Your task to perform on an android device: turn on the 12-hour format for clock Image 0: 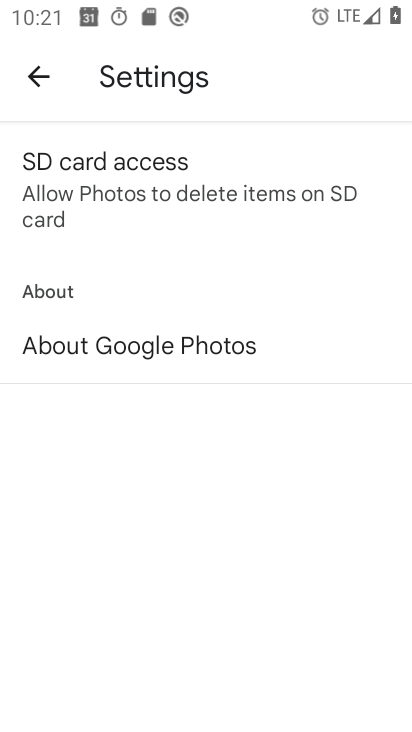
Step 0: press home button
Your task to perform on an android device: turn on the 12-hour format for clock Image 1: 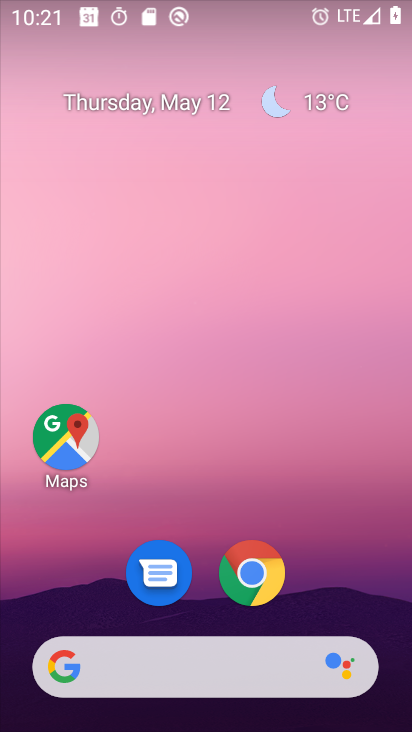
Step 1: drag from (387, 650) to (369, 185)
Your task to perform on an android device: turn on the 12-hour format for clock Image 2: 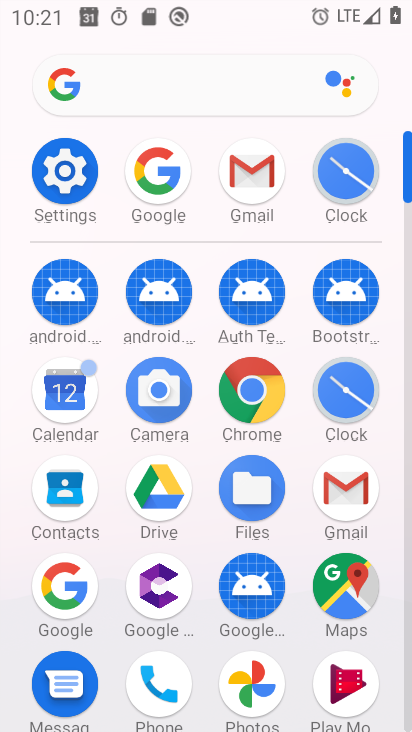
Step 2: click (331, 397)
Your task to perform on an android device: turn on the 12-hour format for clock Image 3: 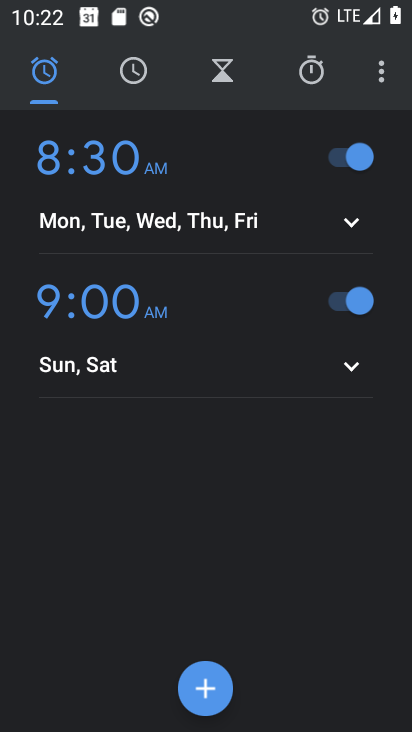
Step 3: click (129, 75)
Your task to perform on an android device: turn on the 12-hour format for clock Image 4: 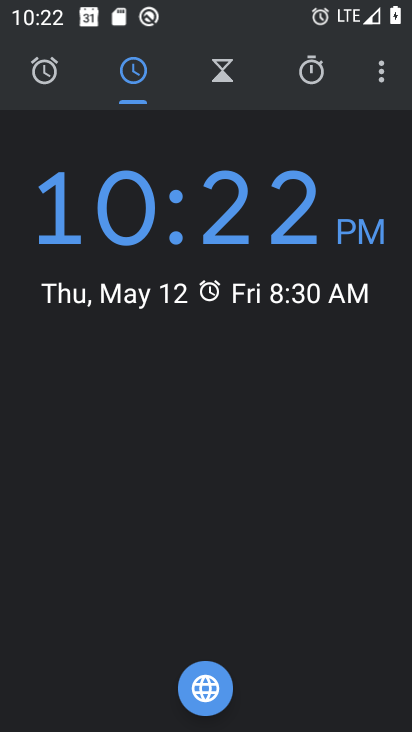
Step 4: click (380, 77)
Your task to perform on an android device: turn on the 12-hour format for clock Image 5: 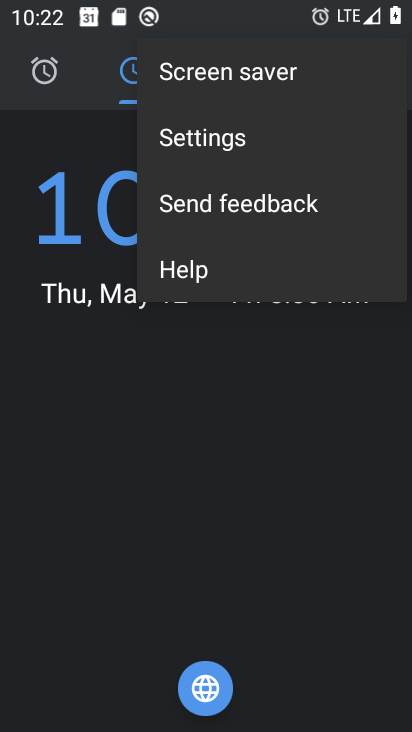
Step 5: click (203, 133)
Your task to perform on an android device: turn on the 12-hour format for clock Image 6: 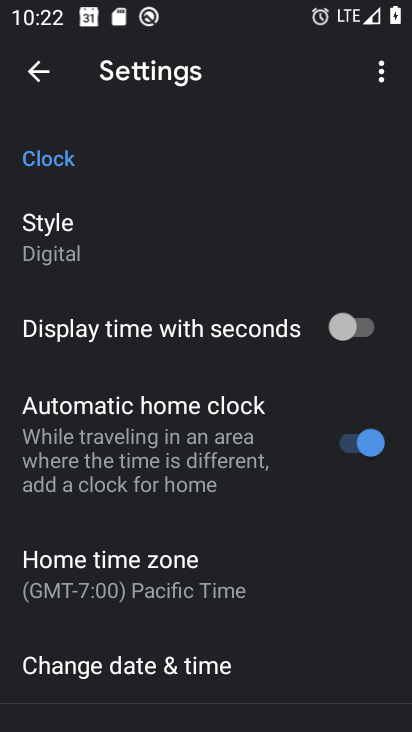
Step 6: click (147, 673)
Your task to perform on an android device: turn on the 12-hour format for clock Image 7: 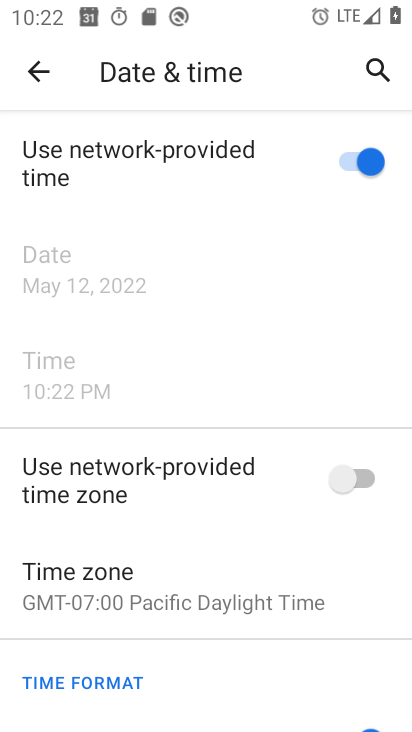
Step 7: task complete